Your task to perform on an android device: Open Google Chrome Image 0: 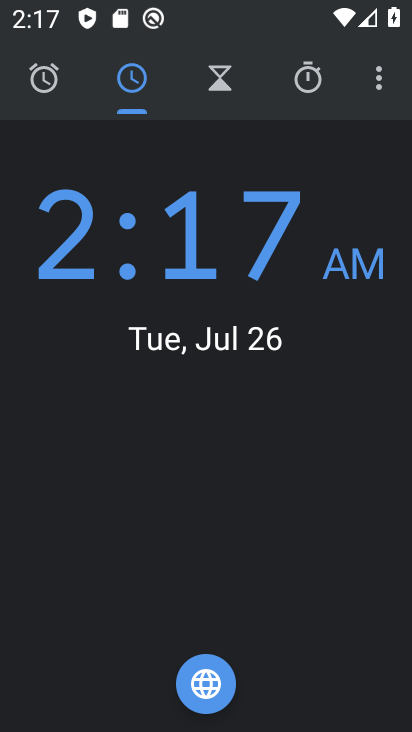
Step 0: press back button
Your task to perform on an android device: Open Google Chrome Image 1: 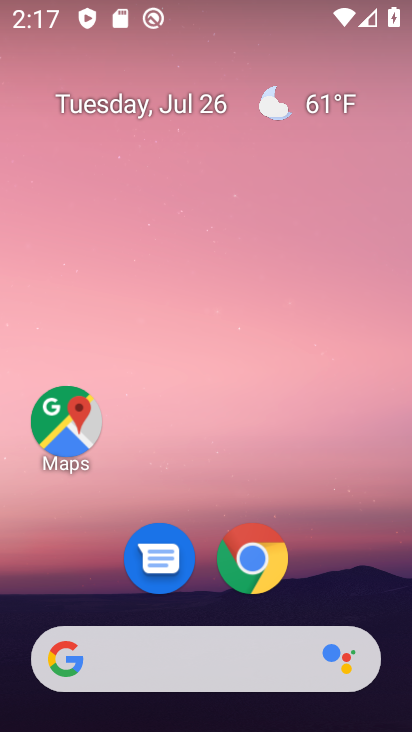
Step 1: click (254, 558)
Your task to perform on an android device: Open Google Chrome Image 2: 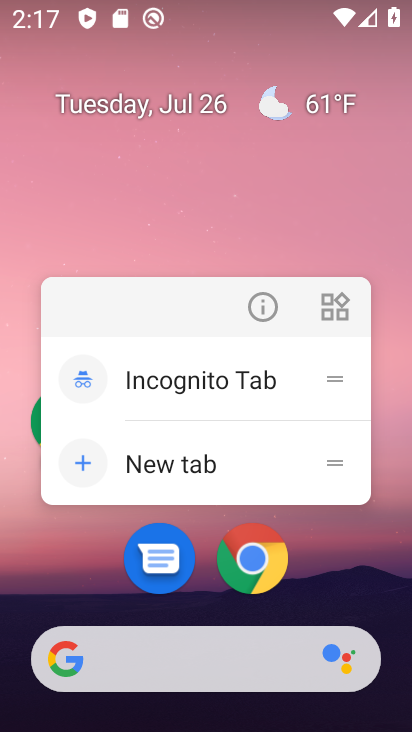
Step 2: click (254, 558)
Your task to perform on an android device: Open Google Chrome Image 3: 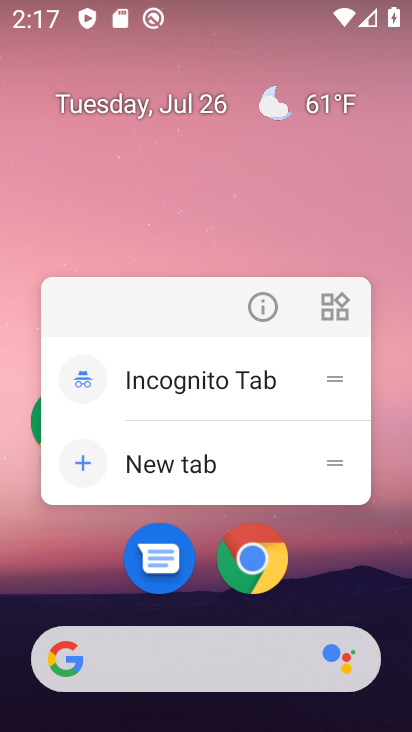
Step 3: click (254, 558)
Your task to perform on an android device: Open Google Chrome Image 4: 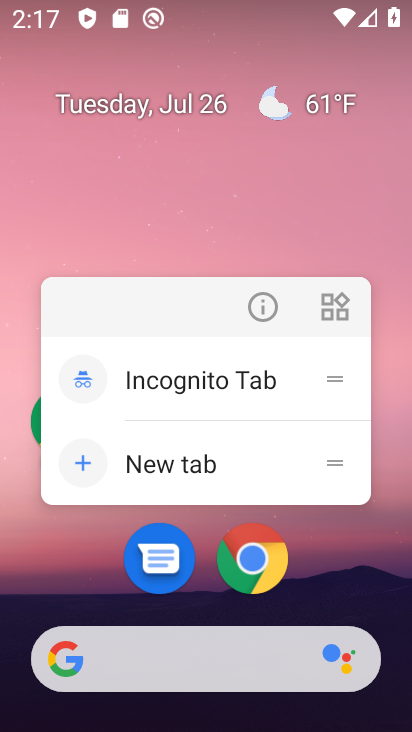
Step 4: click (246, 568)
Your task to perform on an android device: Open Google Chrome Image 5: 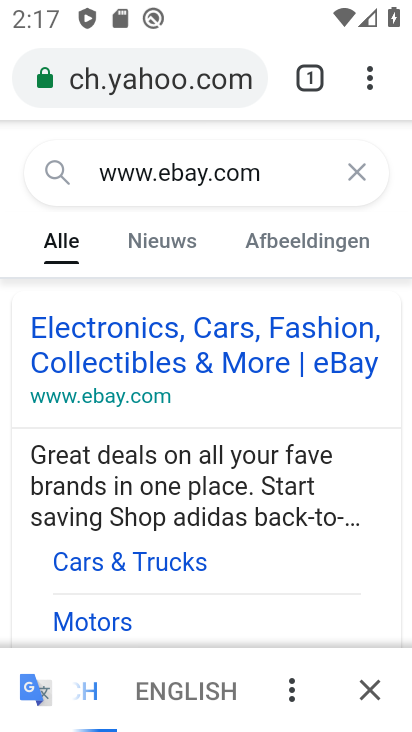
Step 5: task complete